Your task to perform on an android device: toggle notifications settings in the gmail app Image 0: 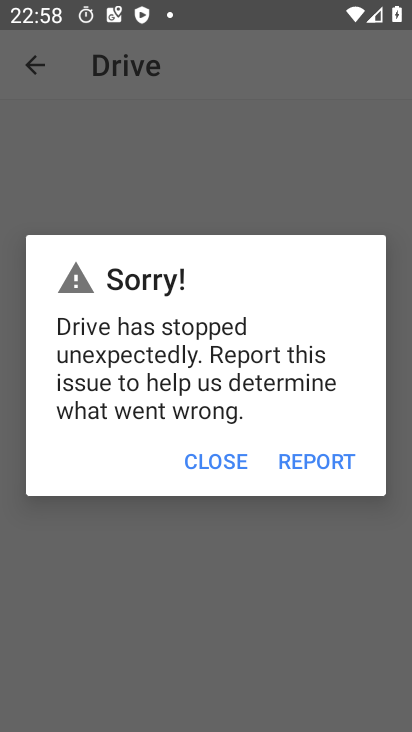
Step 0: press home button
Your task to perform on an android device: toggle notifications settings in the gmail app Image 1: 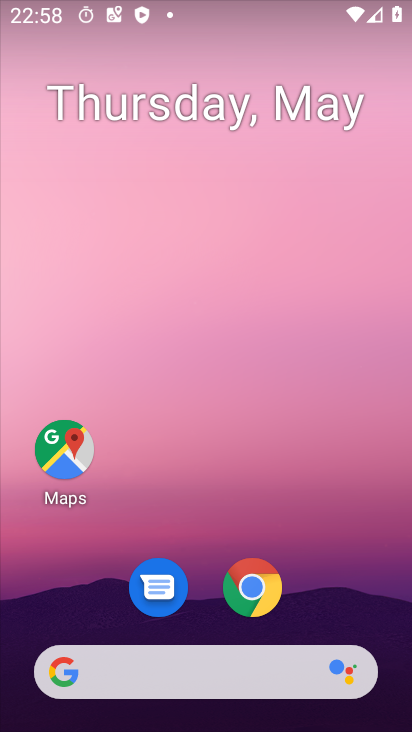
Step 1: drag from (355, 285) to (369, 20)
Your task to perform on an android device: toggle notifications settings in the gmail app Image 2: 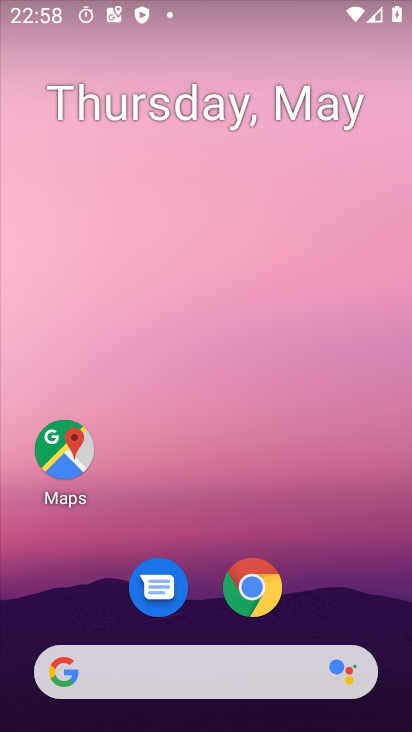
Step 2: drag from (354, 640) to (411, 604)
Your task to perform on an android device: toggle notifications settings in the gmail app Image 3: 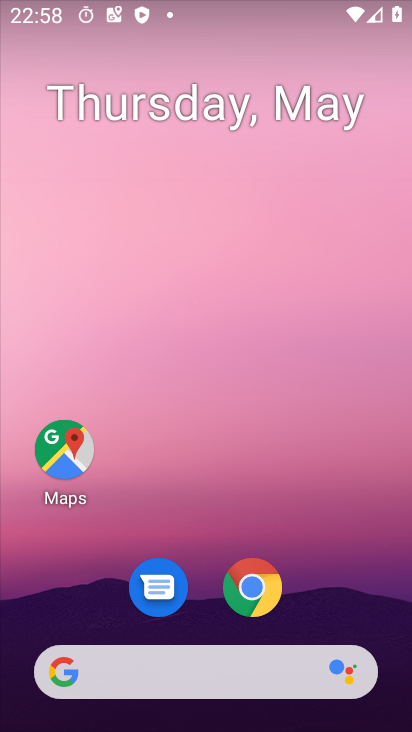
Step 3: drag from (314, 637) to (323, 12)
Your task to perform on an android device: toggle notifications settings in the gmail app Image 4: 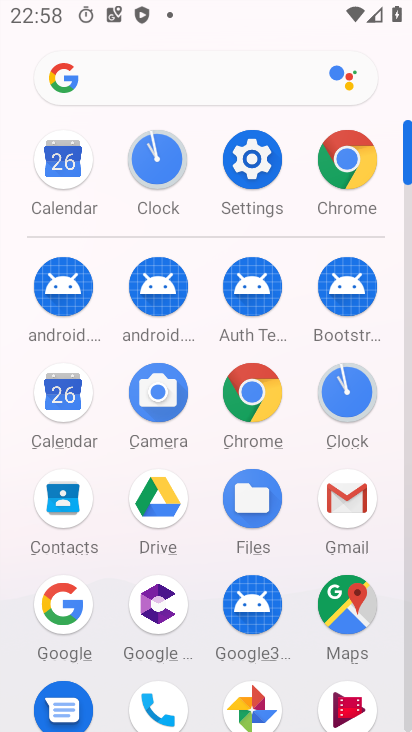
Step 4: click (340, 499)
Your task to perform on an android device: toggle notifications settings in the gmail app Image 5: 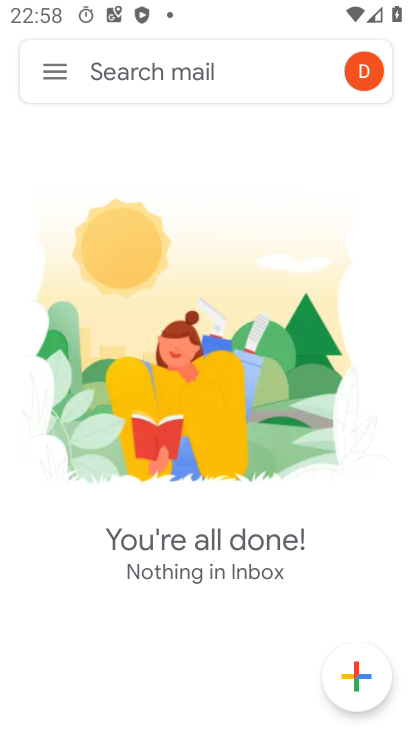
Step 5: click (57, 79)
Your task to perform on an android device: toggle notifications settings in the gmail app Image 6: 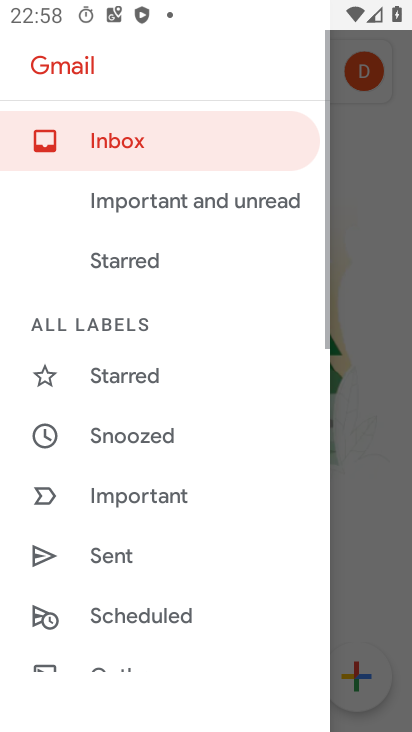
Step 6: click (57, 79)
Your task to perform on an android device: toggle notifications settings in the gmail app Image 7: 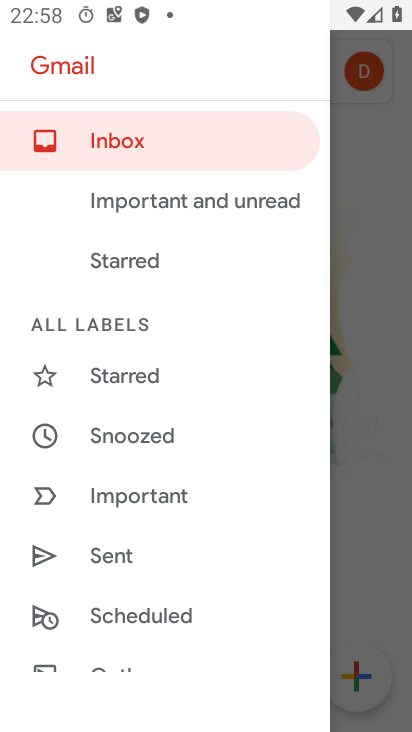
Step 7: drag from (156, 504) to (148, 23)
Your task to perform on an android device: toggle notifications settings in the gmail app Image 8: 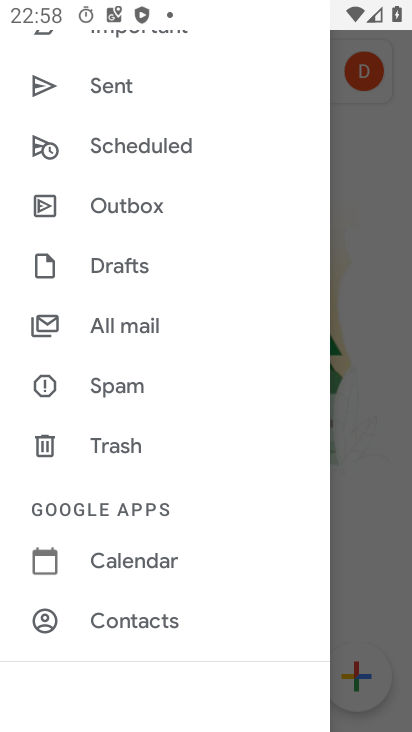
Step 8: drag from (175, 580) to (181, 192)
Your task to perform on an android device: toggle notifications settings in the gmail app Image 9: 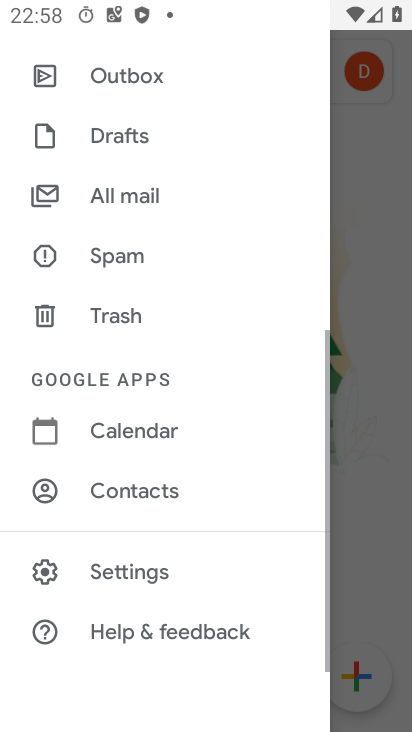
Step 9: click (100, 565)
Your task to perform on an android device: toggle notifications settings in the gmail app Image 10: 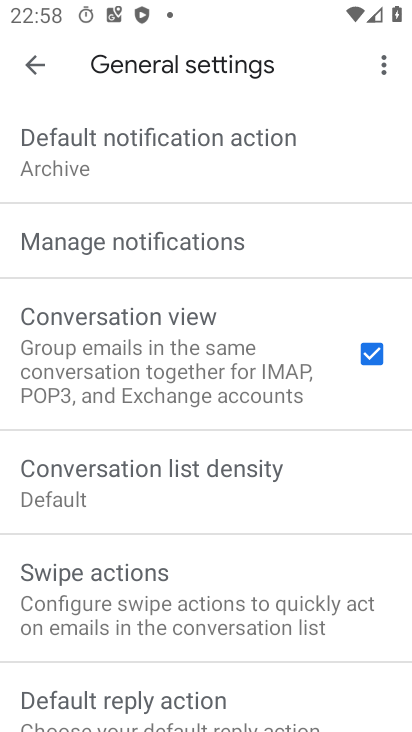
Step 10: click (117, 253)
Your task to perform on an android device: toggle notifications settings in the gmail app Image 11: 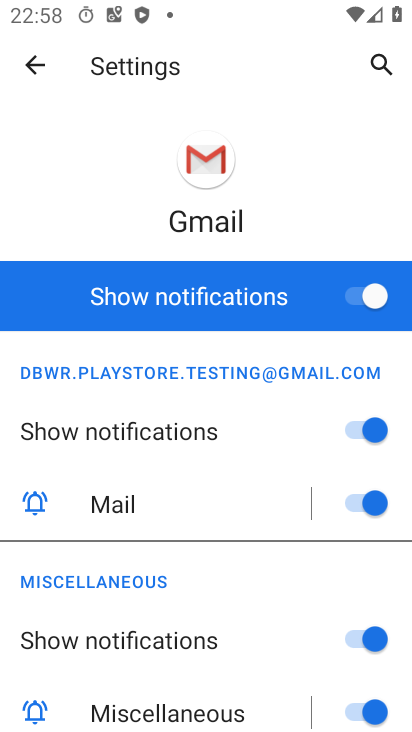
Step 11: click (386, 298)
Your task to perform on an android device: toggle notifications settings in the gmail app Image 12: 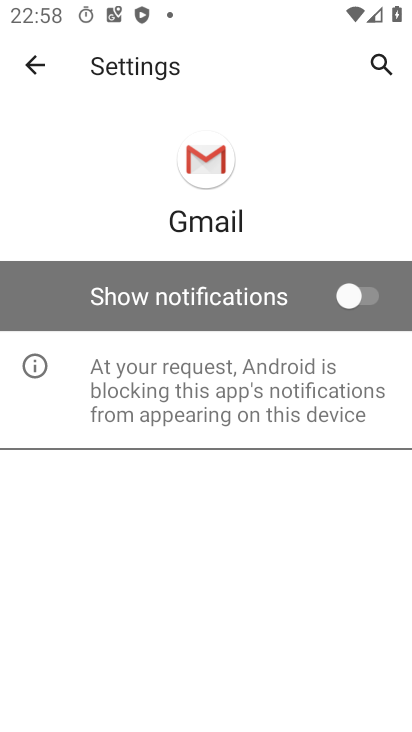
Step 12: task complete